Your task to perform on an android device: turn vacation reply on in the gmail app Image 0: 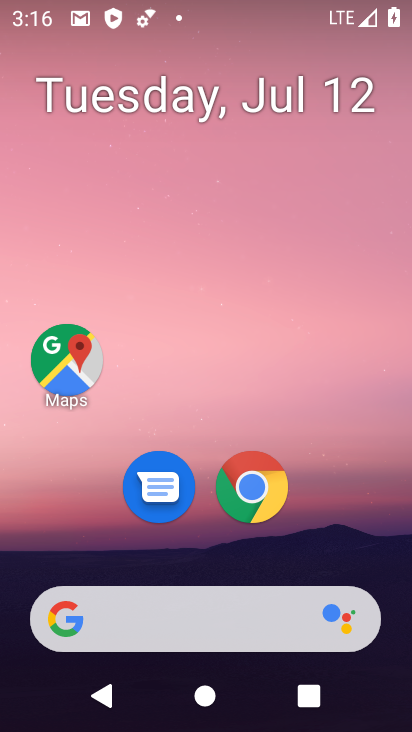
Step 0: drag from (240, 586) to (318, 23)
Your task to perform on an android device: turn vacation reply on in the gmail app Image 1: 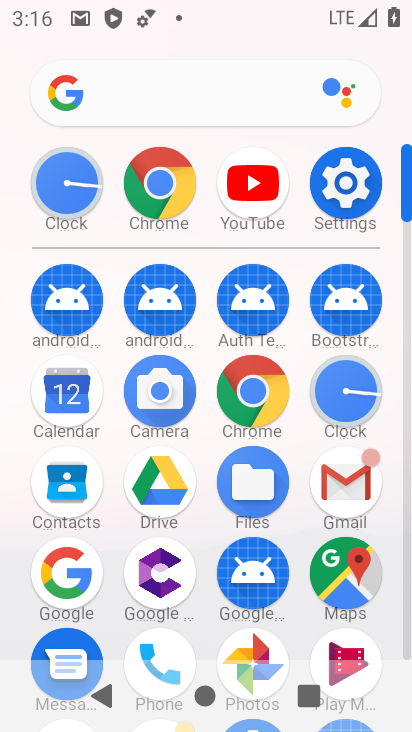
Step 1: click (339, 496)
Your task to perform on an android device: turn vacation reply on in the gmail app Image 2: 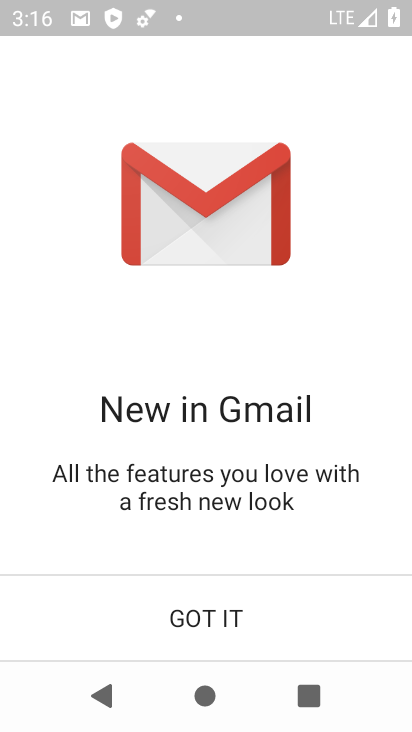
Step 2: click (244, 616)
Your task to perform on an android device: turn vacation reply on in the gmail app Image 3: 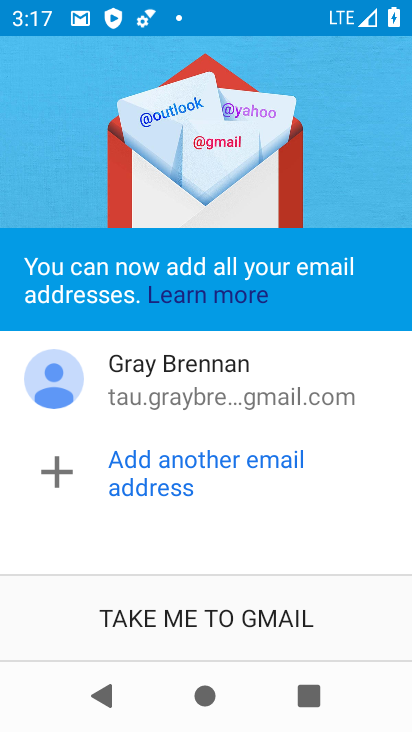
Step 3: click (268, 627)
Your task to perform on an android device: turn vacation reply on in the gmail app Image 4: 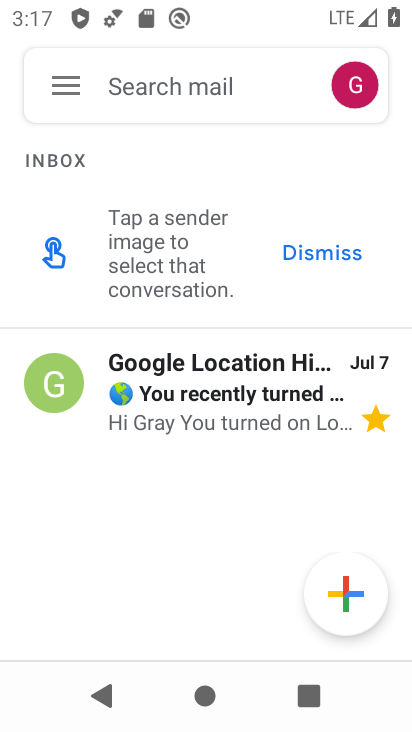
Step 4: click (69, 95)
Your task to perform on an android device: turn vacation reply on in the gmail app Image 5: 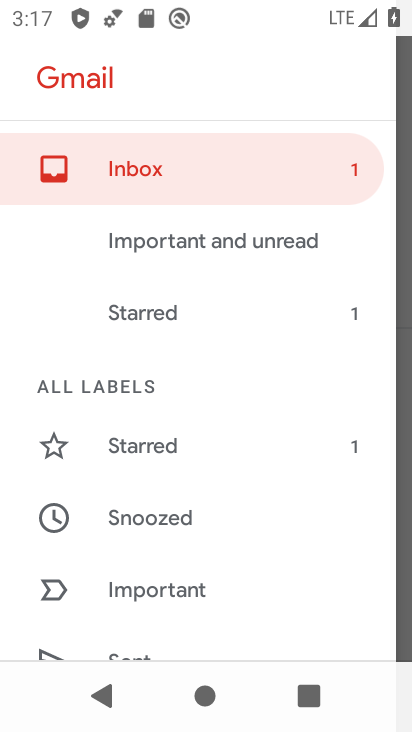
Step 5: drag from (176, 559) to (233, 2)
Your task to perform on an android device: turn vacation reply on in the gmail app Image 6: 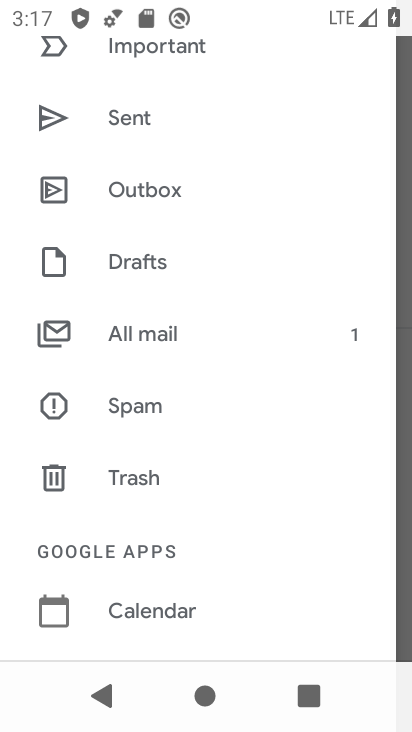
Step 6: drag from (143, 526) to (203, 10)
Your task to perform on an android device: turn vacation reply on in the gmail app Image 7: 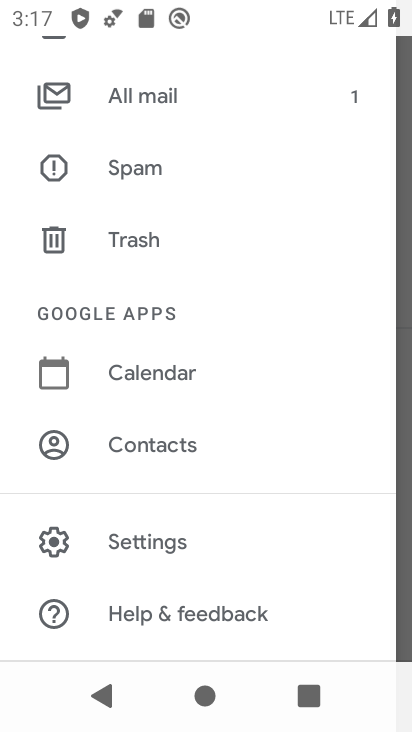
Step 7: click (130, 530)
Your task to perform on an android device: turn vacation reply on in the gmail app Image 8: 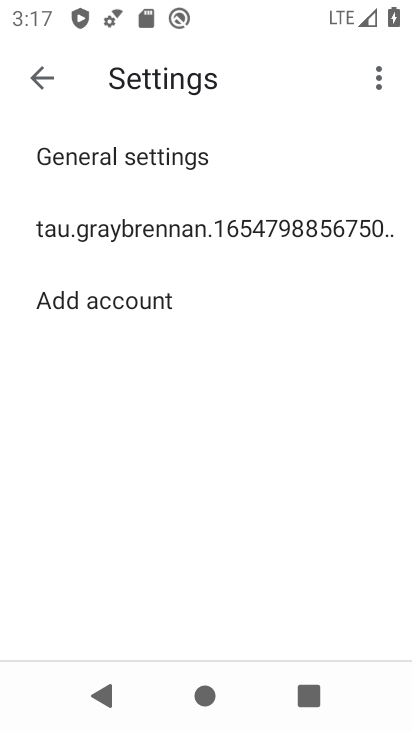
Step 8: click (157, 231)
Your task to perform on an android device: turn vacation reply on in the gmail app Image 9: 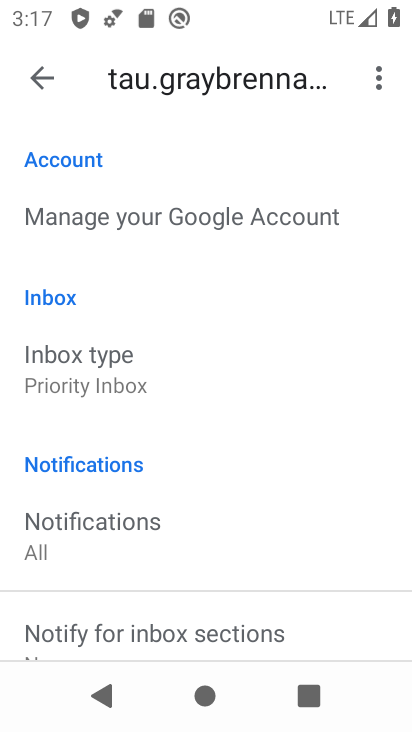
Step 9: drag from (148, 490) to (235, 31)
Your task to perform on an android device: turn vacation reply on in the gmail app Image 10: 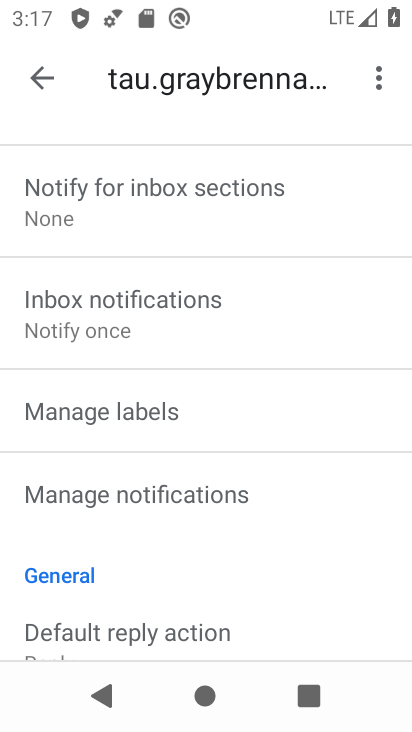
Step 10: drag from (207, 551) to (307, 23)
Your task to perform on an android device: turn vacation reply on in the gmail app Image 11: 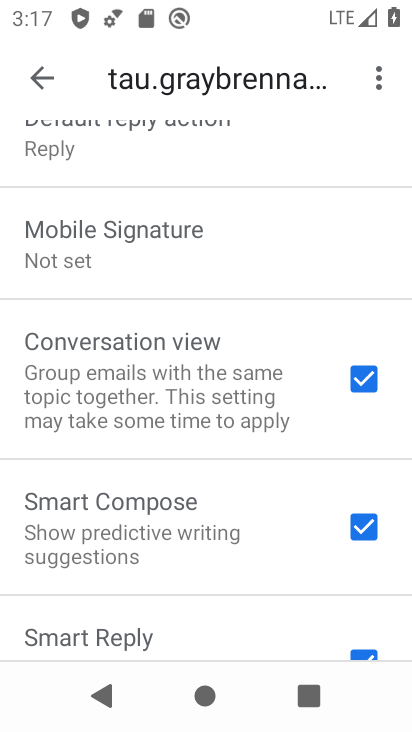
Step 11: drag from (180, 491) to (249, 100)
Your task to perform on an android device: turn vacation reply on in the gmail app Image 12: 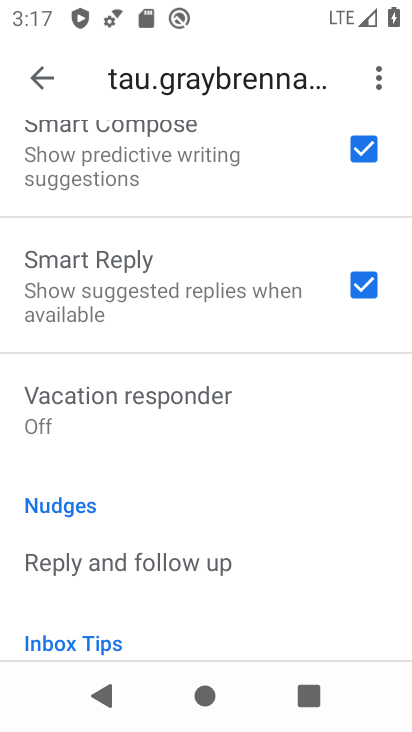
Step 12: click (193, 403)
Your task to perform on an android device: turn vacation reply on in the gmail app Image 13: 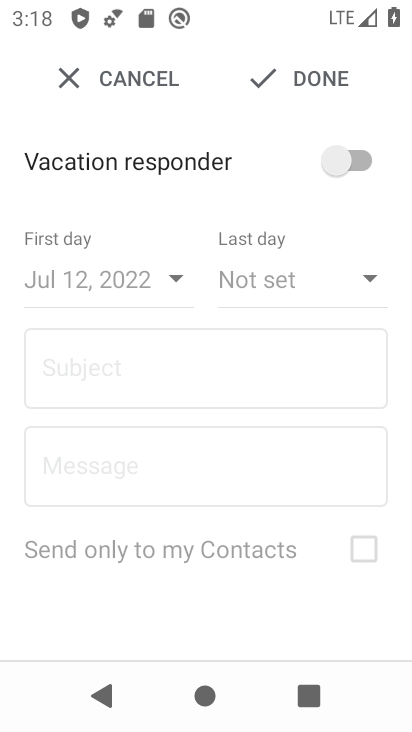
Step 13: click (367, 163)
Your task to perform on an android device: turn vacation reply on in the gmail app Image 14: 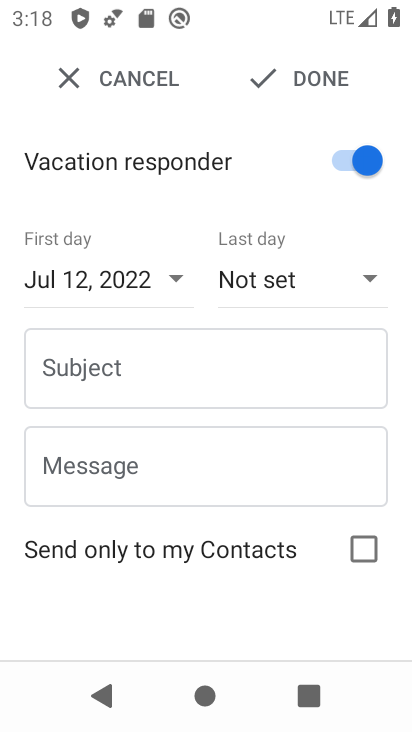
Step 14: task complete